Your task to perform on an android device: turn off picture-in-picture Image 0: 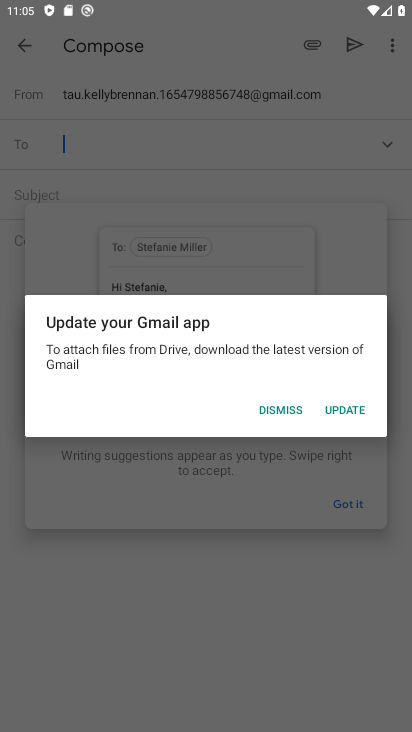
Step 0: press home button
Your task to perform on an android device: turn off picture-in-picture Image 1: 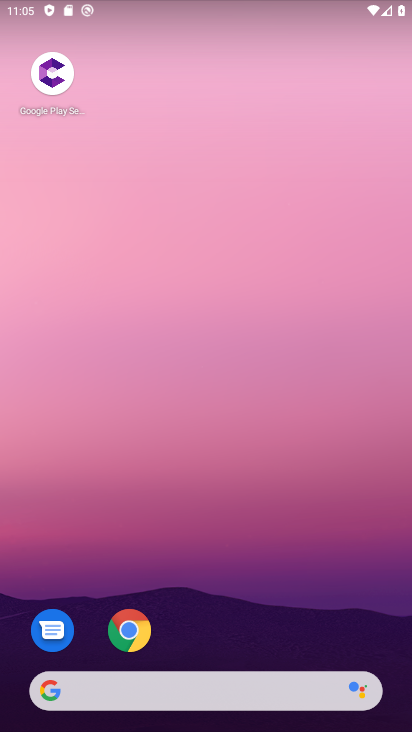
Step 1: drag from (331, 637) to (267, 52)
Your task to perform on an android device: turn off picture-in-picture Image 2: 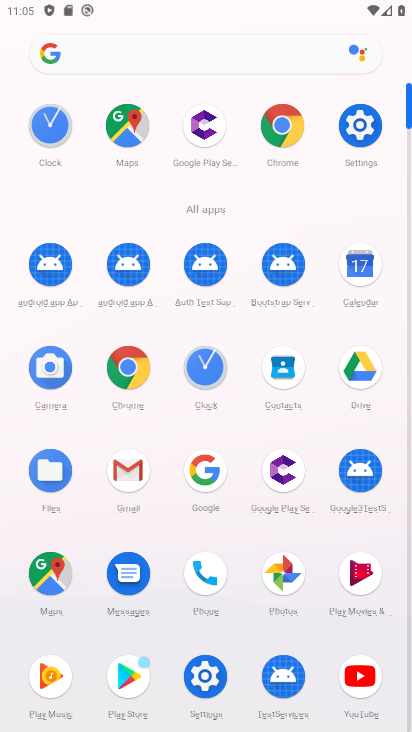
Step 2: click (273, 135)
Your task to perform on an android device: turn off picture-in-picture Image 3: 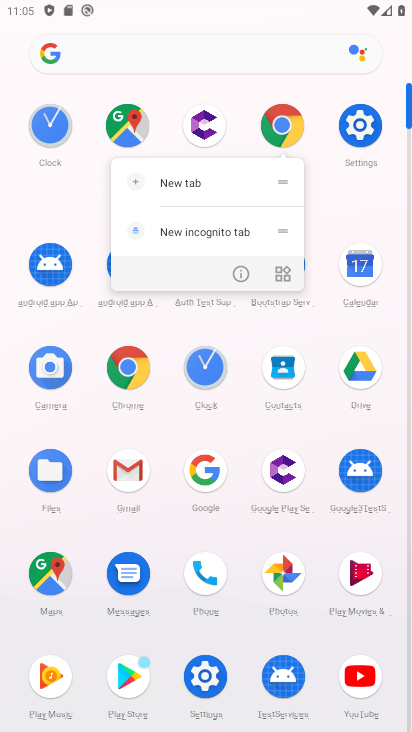
Step 3: click (239, 278)
Your task to perform on an android device: turn off picture-in-picture Image 4: 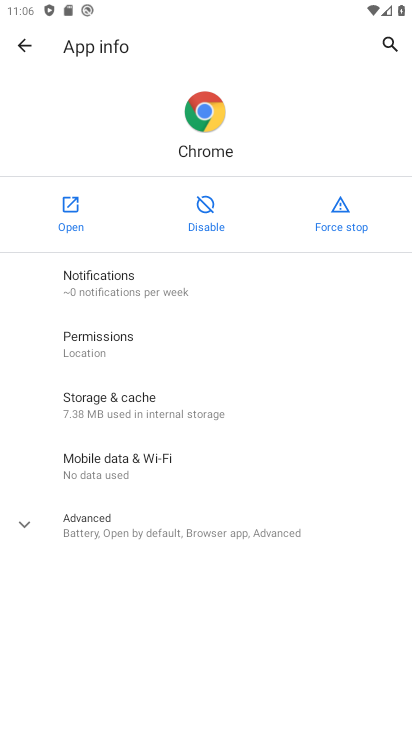
Step 4: click (188, 535)
Your task to perform on an android device: turn off picture-in-picture Image 5: 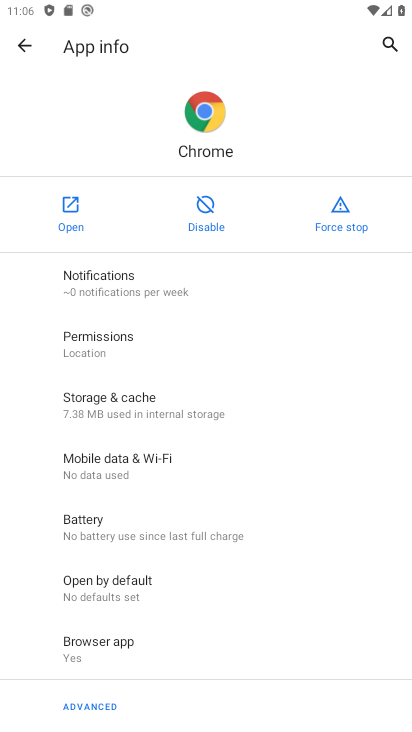
Step 5: drag from (199, 678) to (2, 0)
Your task to perform on an android device: turn off picture-in-picture Image 6: 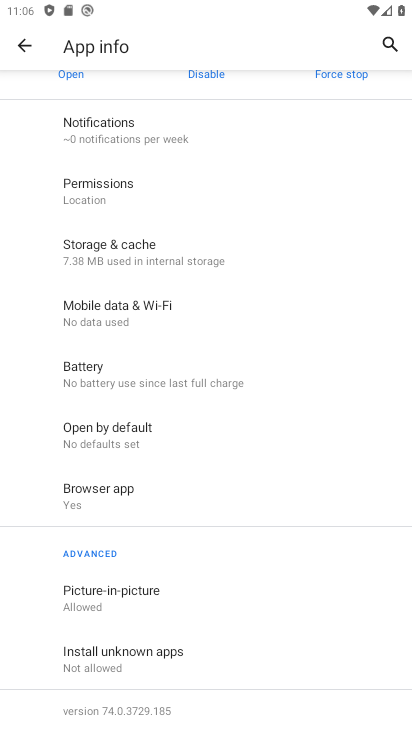
Step 6: click (108, 603)
Your task to perform on an android device: turn off picture-in-picture Image 7: 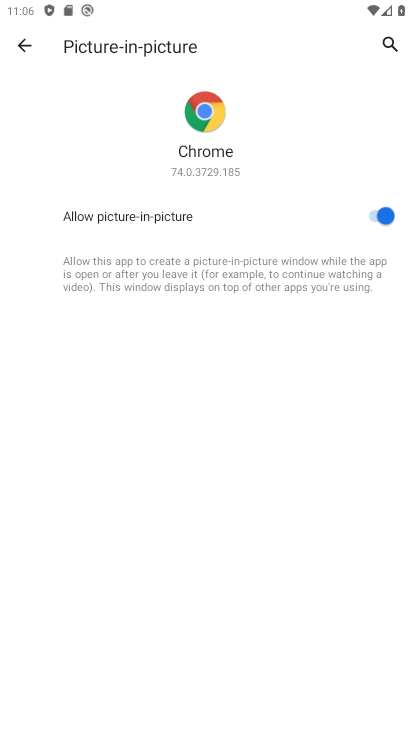
Step 7: click (383, 224)
Your task to perform on an android device: turn off picture-in-picture Image 8: 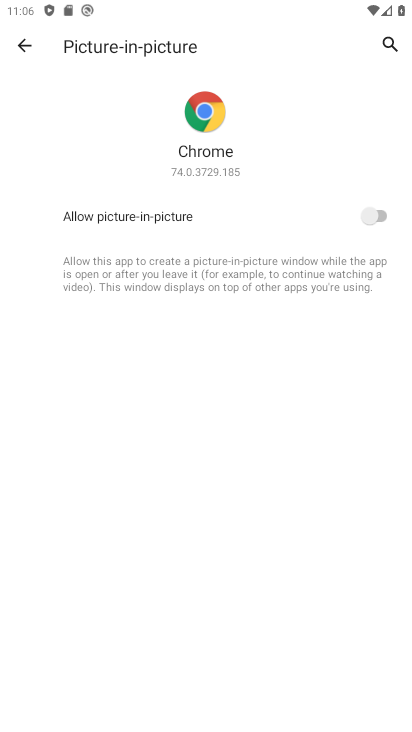
Step 8: task complete